Your task to perform on an android device: What's the weather going to be tomorrow? Image 0: 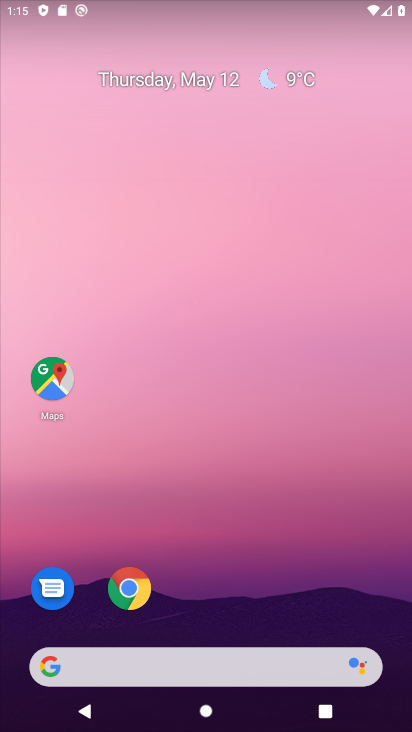
Step 0: click (70, 388)
Your task to perform on an android device: What's the weather going to be tomorrow? Image 1: 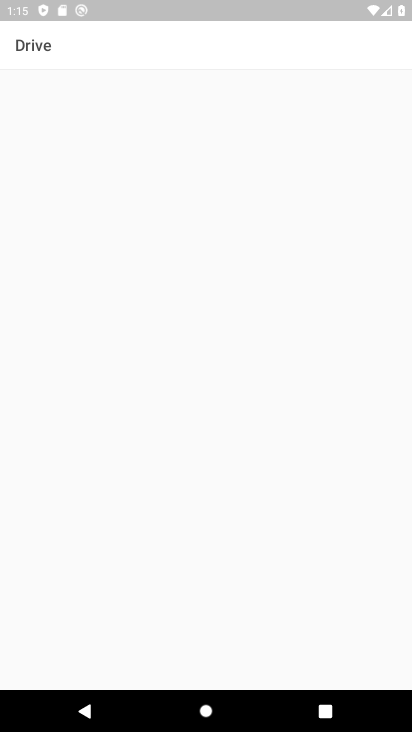
Step 1: press back button
Your task to perform on an android device: What's the weather going to be tomorrow? Image 2: 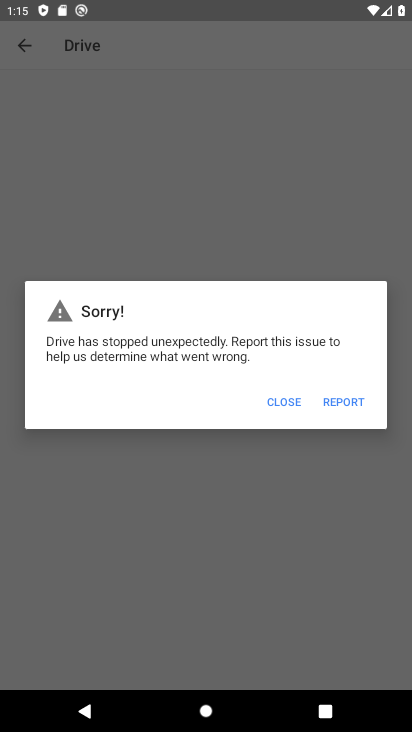
Step 2: press home button
Your task to perform on an android device: What's the weather going to be tomorrow? Image 3: 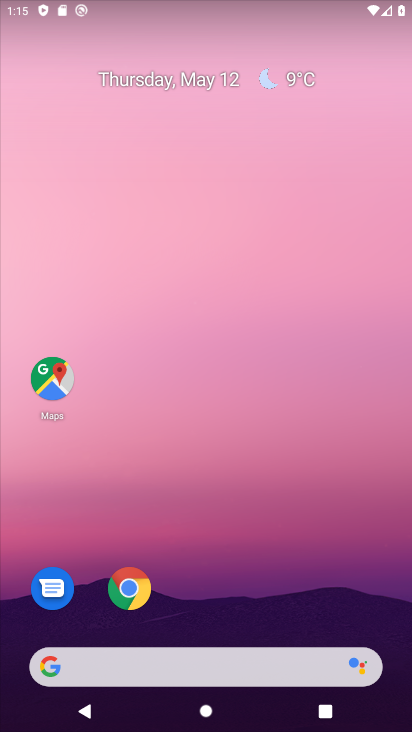
Step 3: click (306, 89)
Your task to perform on an android device: What's the weather going to be tomorrow? Image 4: 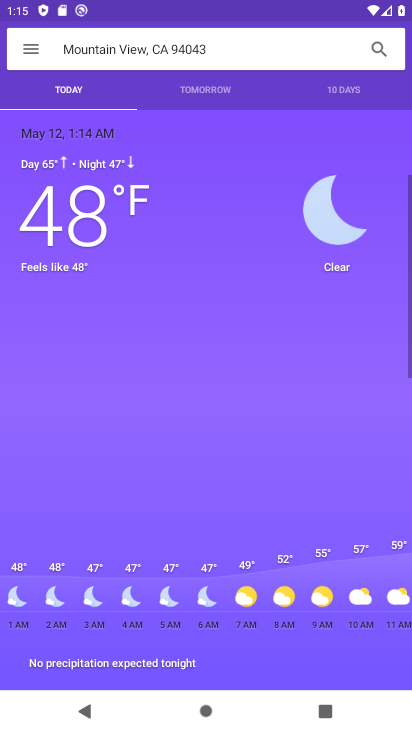
Step 4: click (248, 99)
Your task to perform on an android device: What's the weather going to be tomorrow? Image 5: 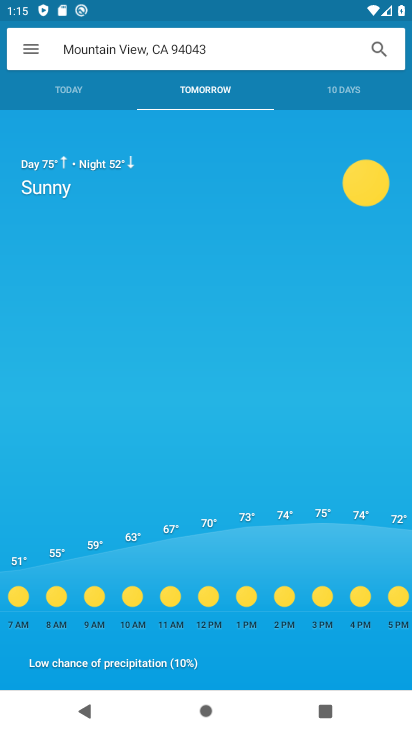
Step 5: task complete